Your task to perform on an android device: create a new album in the google photos Image 0: 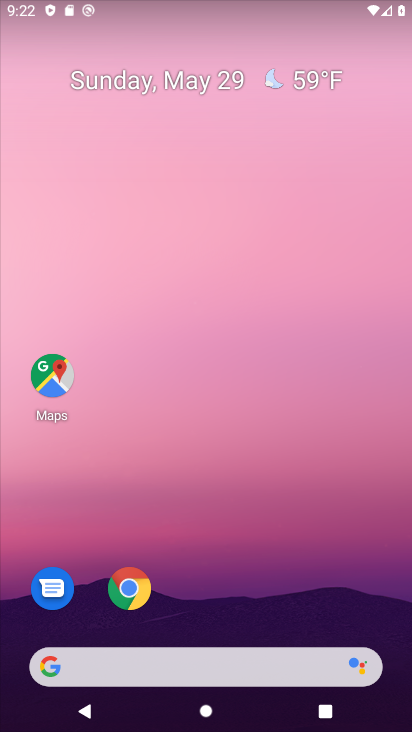
Step 0: drag from (252, 612) to (174, 117)
Your task to perform on an android device: create a new album in the google photos Image 1: 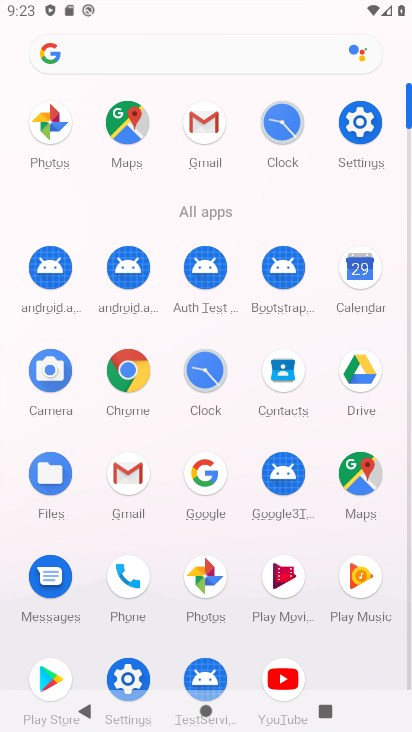
Step 1: click (60, 120)
Your task to perform on an android device: create a new album in the google photos Image 2: 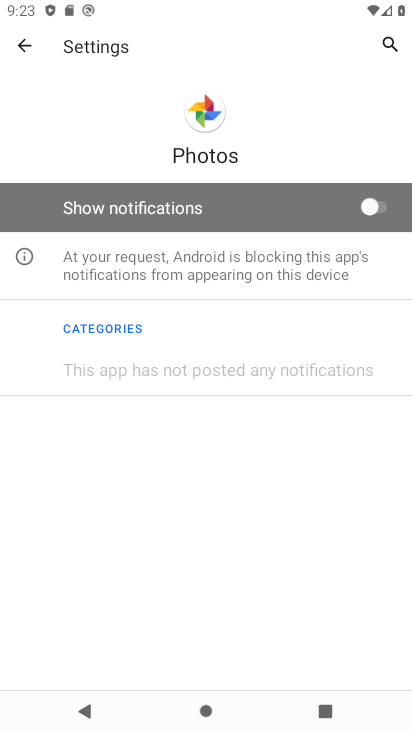
Step 2: click (17, 40)
Your task to perform on an android device: create a new album in the google photos Image 3: 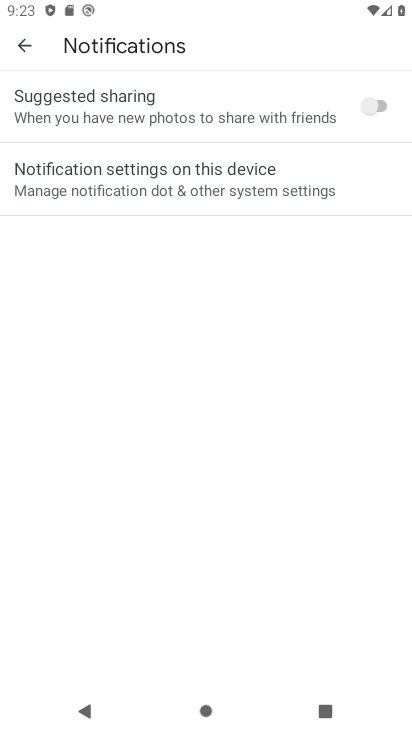
Step 3: click (17, 40)
Your task to perform on an android device: create a new album in the google photos Image 4: 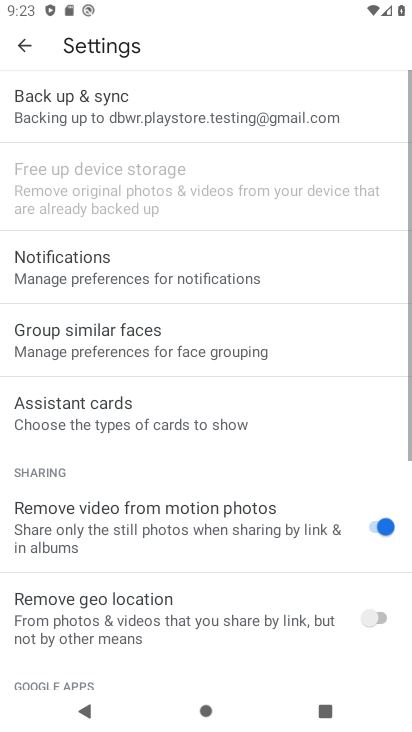
Step 4: click (17, 40)
Your task to perform on an android device: create a new album in the google photos Image 5: 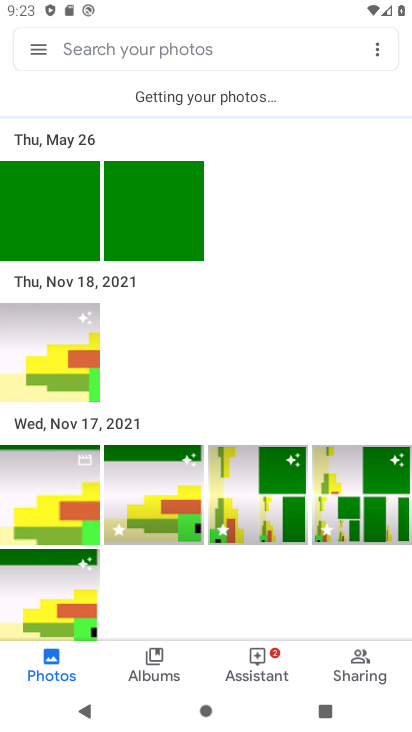
Step 5: click (269, 670)
Your task to perform on an android device: create a new album in the google photos Image 6: 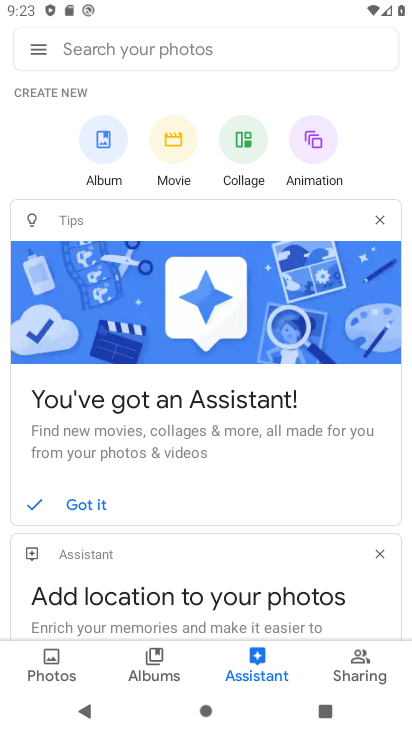
Step 6: click (107, 139)
Your task to perform on an android device: create a new album in the google photos Image 7: 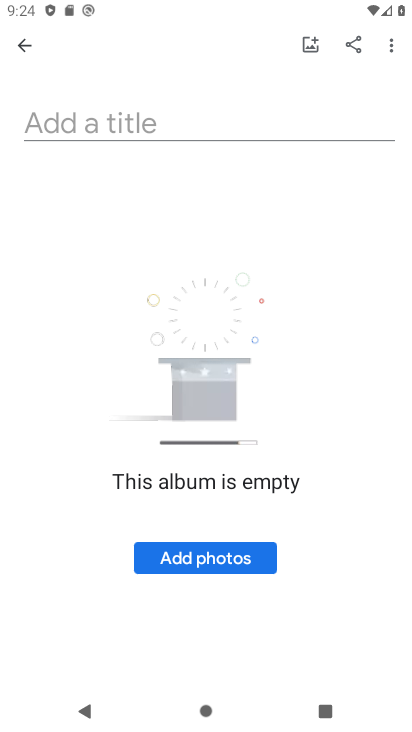
Step 7: click (128, 121)
Your task to perform on an android device: create a new album in the google photos Image 8: 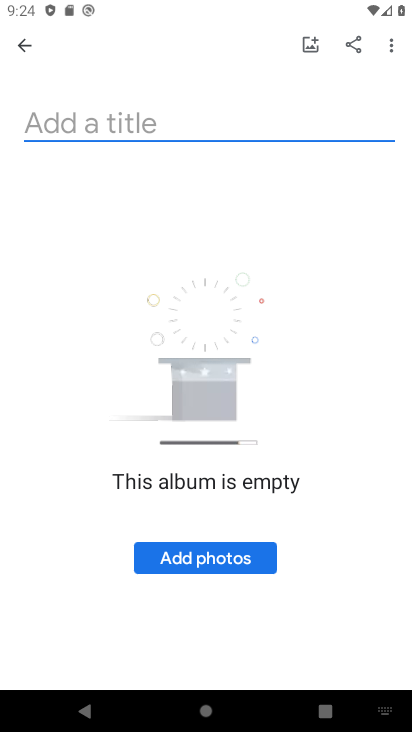
Step 8: type "vhjvjhv"
Your task to perform on an android device: create a new album in the google photos Image 9: 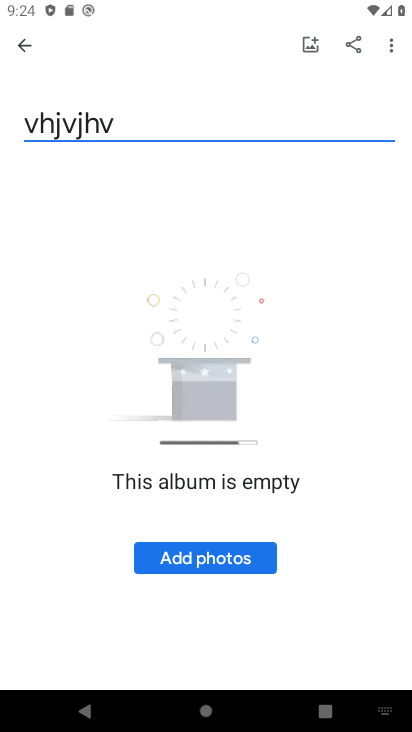
Step 9: click (256, 554)
Your task to perform on an android device: create a new album in the google photos Image 10: 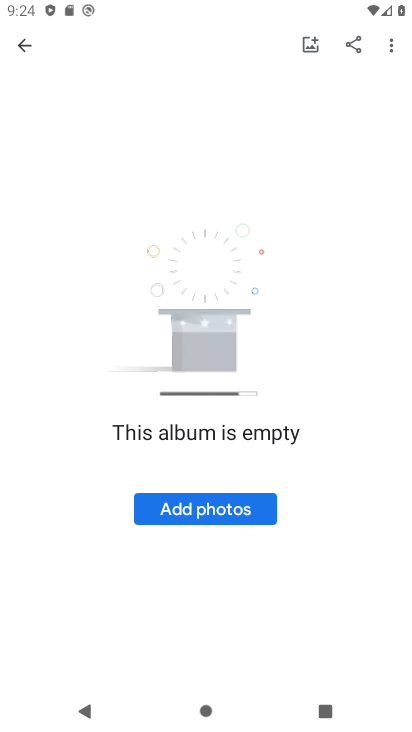
Step 10: click (218, 515)
Your task to perform on an android device: create a new album in the google photos Image 11: 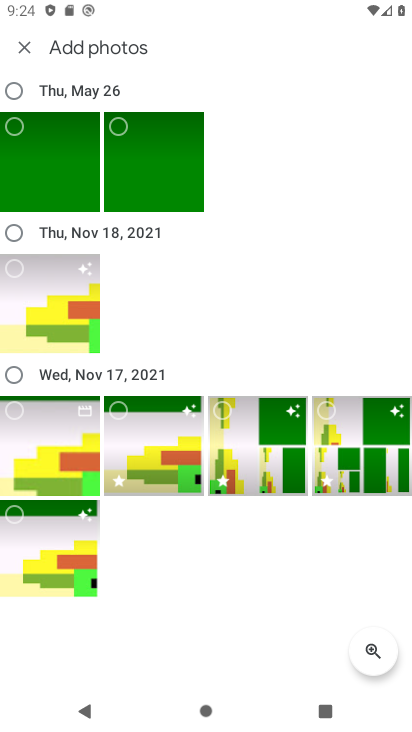
Step 11: click (184, 467)
Your task to perform on an android device: create a new album in the google photos Image 12: 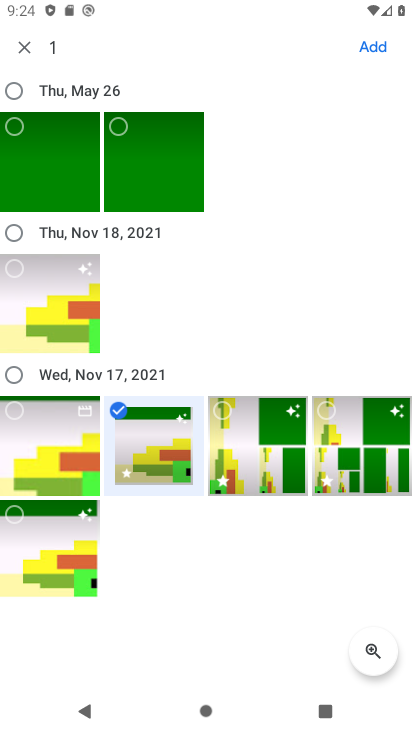
Step 12: click (361, 57)
Your task to perform on an android device: create a new album in the google photos Image 13: 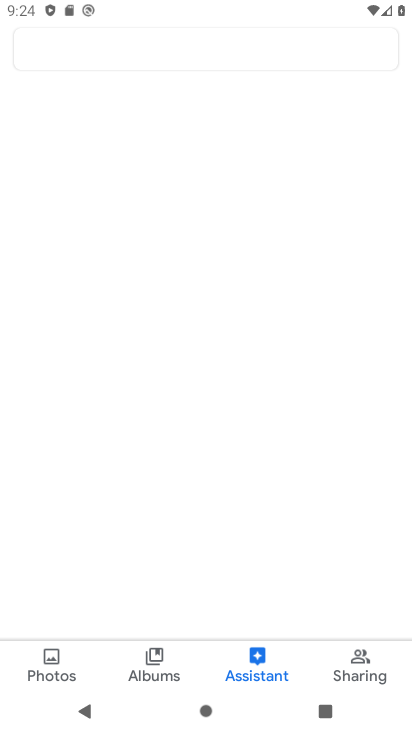
Step 13: task complete